Your task to perform on an android device: turn off smart reply in the gmail app Image 0: 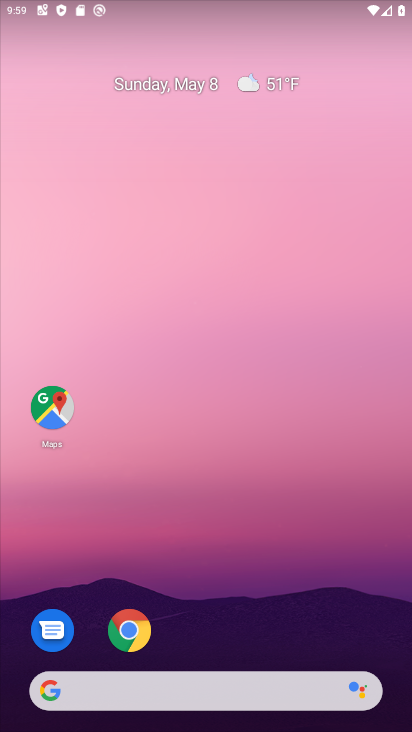
Step 0: drag from (383, 627) to (282, 81)
Your task to perform on an android device: turn off smart reply in the gmail app Image 1: 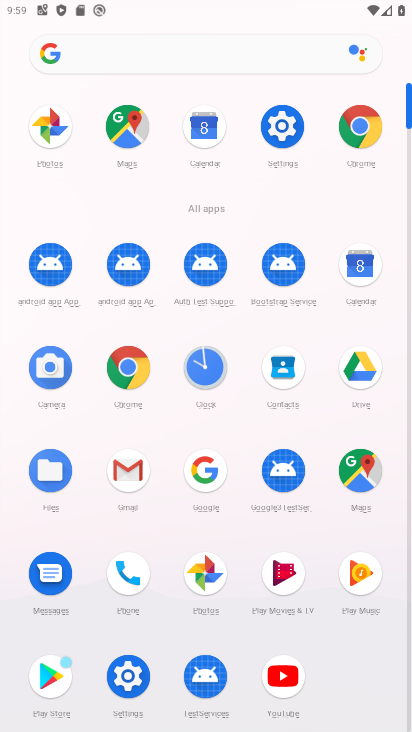
Step 1: click (129, 479)
Your task to perform on an android device: turn off smart reply in the gmail app Image 2: 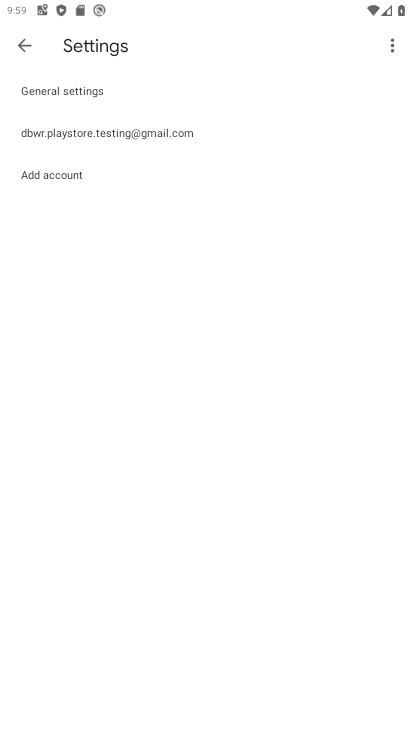
Step 2: click (156, 142)
Your task to perform on an android device: turn off smart reply in the gmail app Image 3: 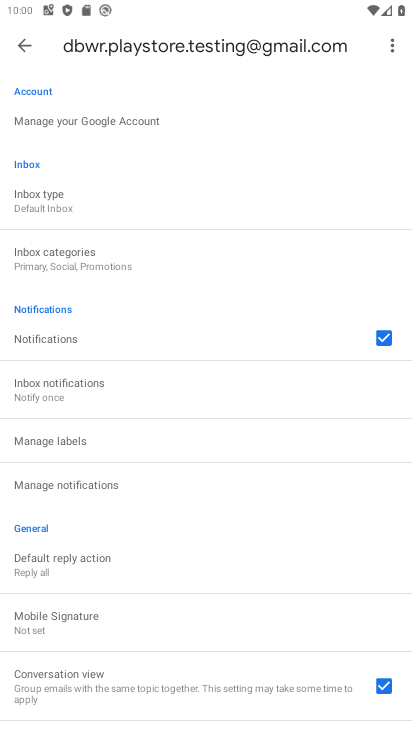
Step 3: drag from (185, 611) to (240, 242)
Your task to perform on an android device: turn off smart reply in the gmail app Image 4: 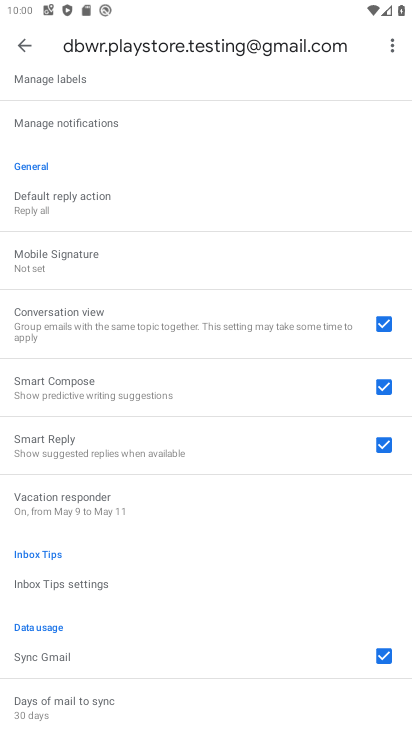
Step 4: click (176, 445)
Your task to perform on an android device: turn off smart reply in the gmail app Image 5: 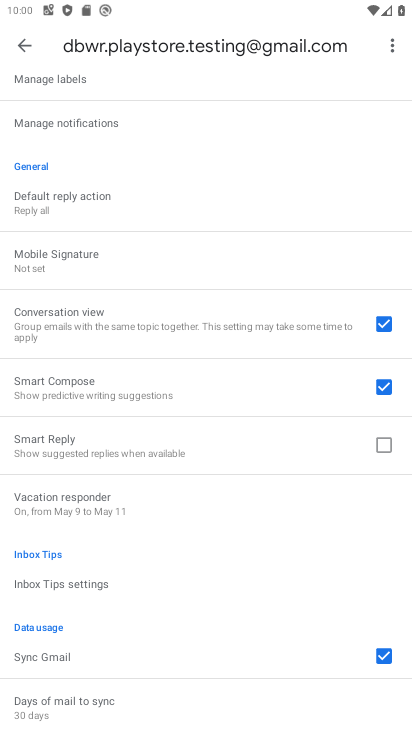
Step 5: task complete